Your task to perform on an android device: turn pop-ups on in chrome Image 0: 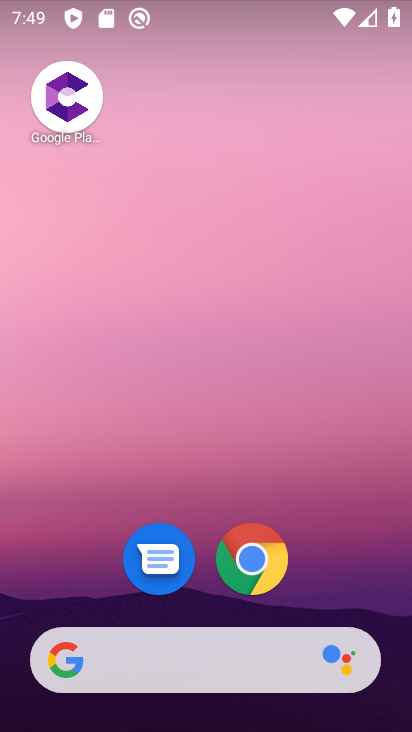
Step 0: click (249, 546)
Your task to perform on an android device: turn pop-ups on in chrome Image 1: 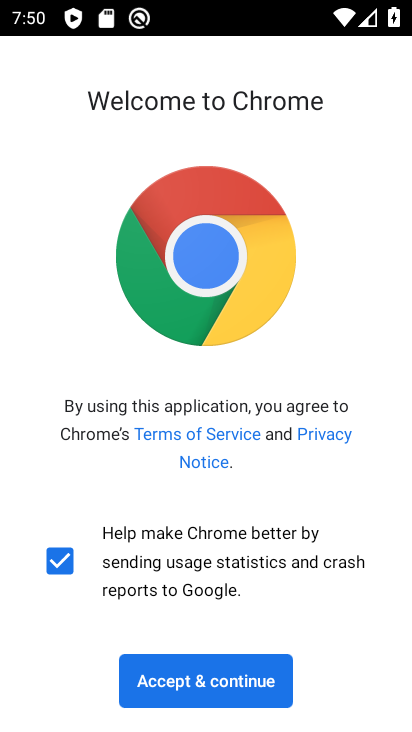
Step 1: click (216, 702)
Your task to perform on an android device: turn pop-ups on in chrome Image 2: 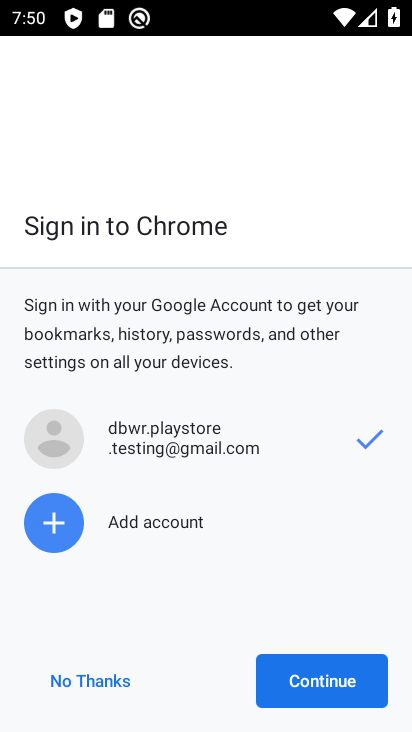
Step 2: click (288, 685)
Your task to perform on an android device: turn pop-ups on in chrome Image 3: 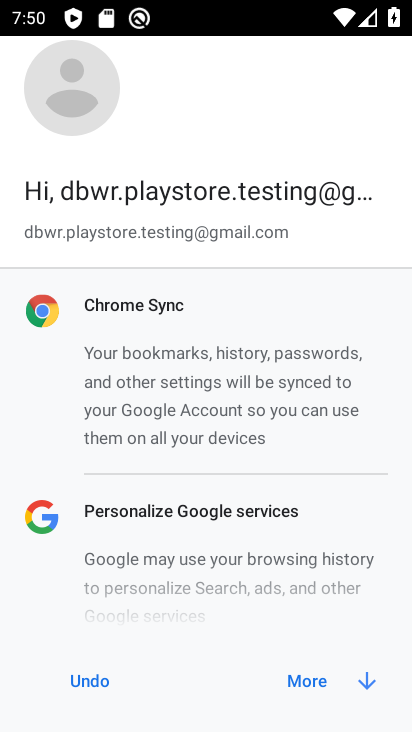
Step 3: click (347, 685)
Your task to perform on an android device: turn pop-ups on in chrome Image 4: 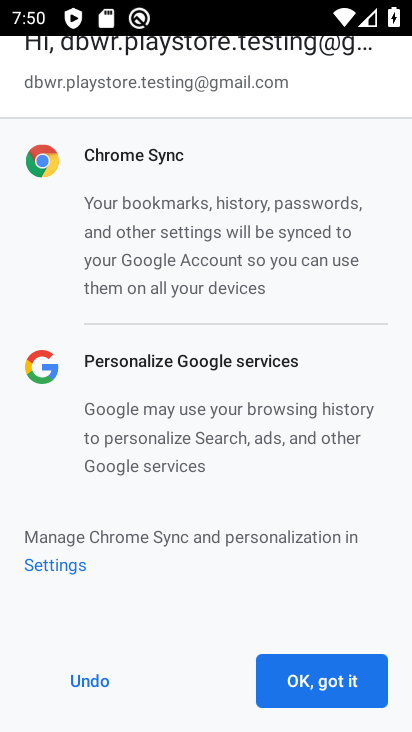
Step 4: click (347, 685)
Your task to perform on an android device: turn pop-ups on in chrome Image 5: 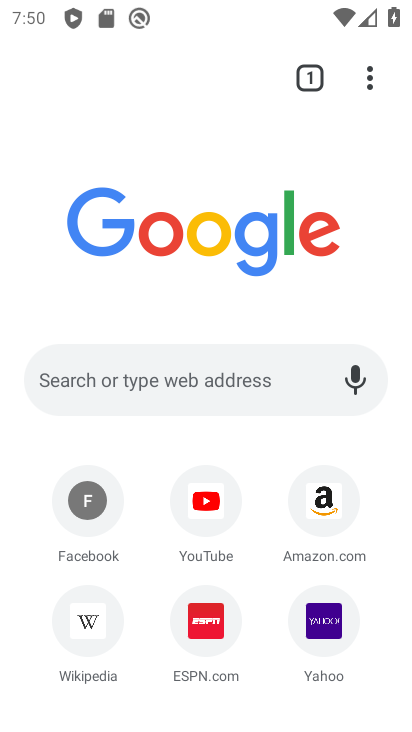
Step 5: click (375, 80)
Your task to perform on an android device: turn pop-ups on in chrome Image 6: 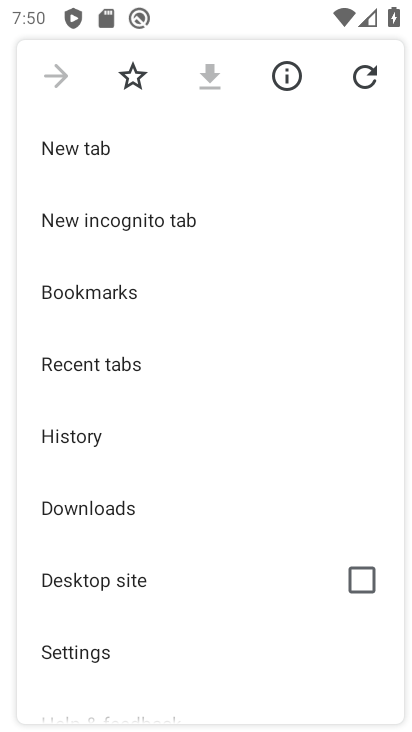
Step 6: drag from (228, 569) to (204, 295)
Your task to perform on an android device: turn pop-ups on in chrome Image 7: 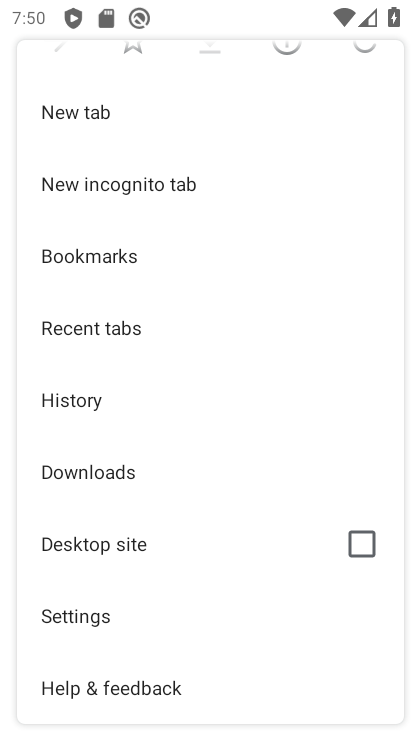
Step 7: click (138, 606)
Your task to perform on an android device: turn pop-ups on in chrome Image 8: 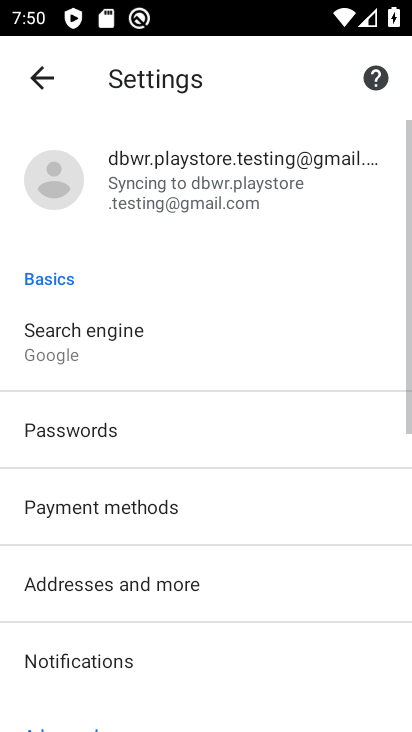
Step 8: drag from (238, 617) to (235, 190)
Your task to perform on an android device: turn pop-ups on in chrome Image 9: 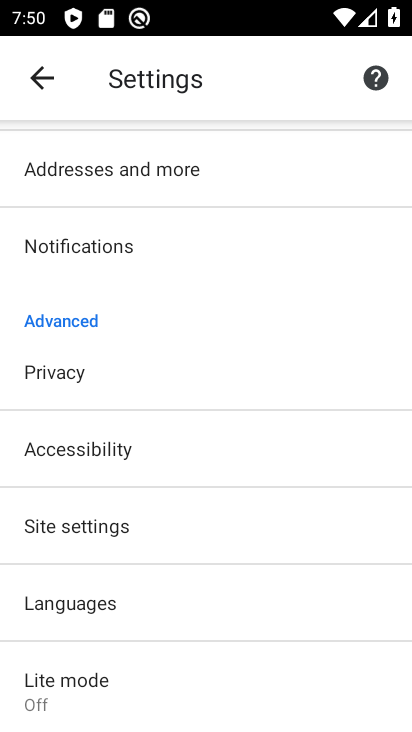
Step 9: click (188, 546)
Your task to perform on an android device: turn pop-ups on in chrome Image 10: 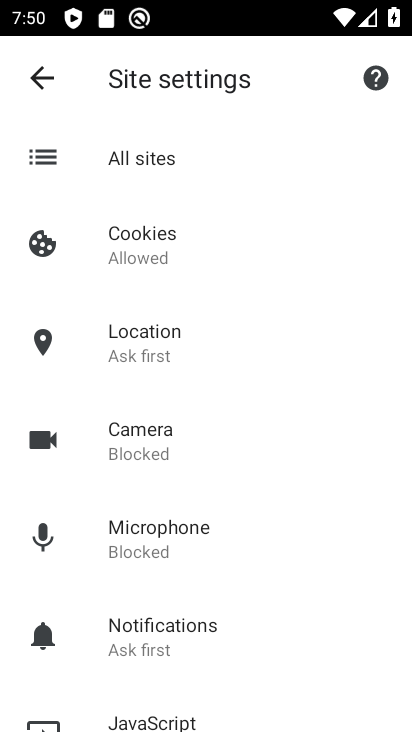
Step 10: drag from (218, 646) to (163, 241)
Your task to perform on an android device: turn pop-ups on in chrome Image 11: 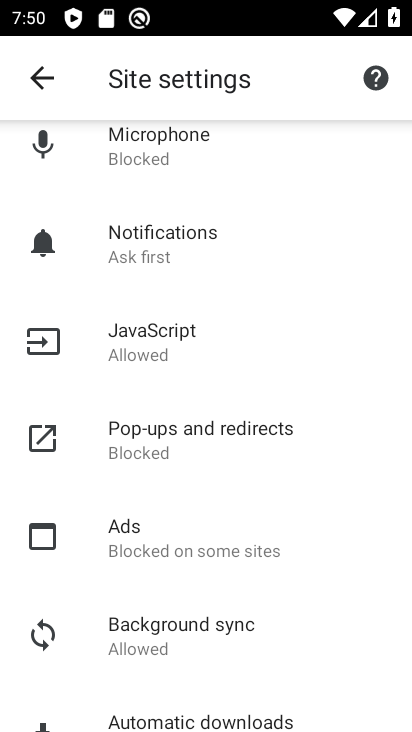
Step 11: drag from (188, 528) to (181, 222)
Your task to perform on an android device: turn pop-ups on in chrome Image 12: 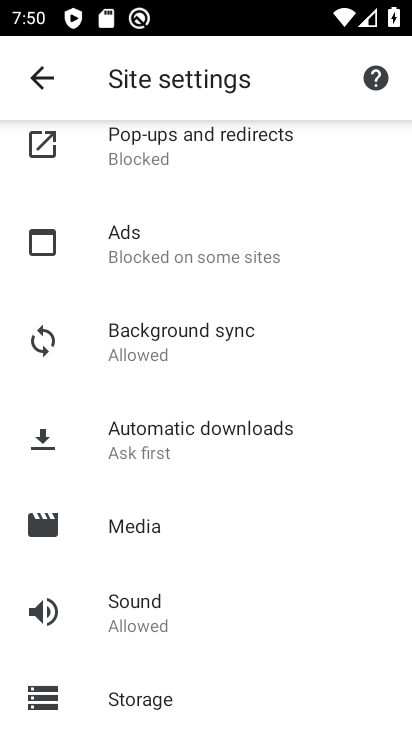
Step 12: drag from (170, 580) to (169, 463)
Your task to perform on an android device: turn pop-ups on in chrome Image 13: 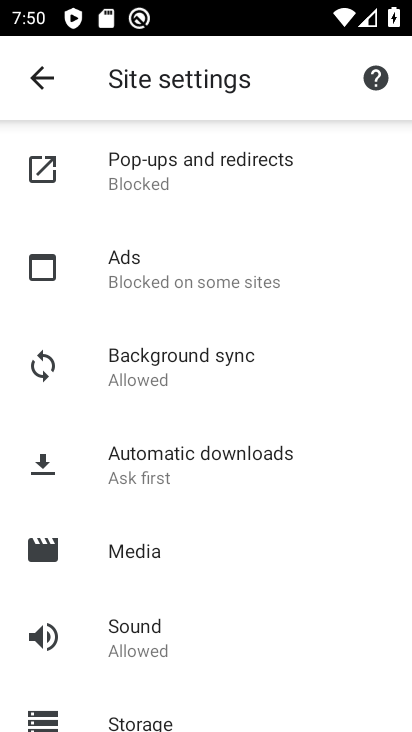
Step 13: click (118, 180)
Your task to perform on an android device: turn pop-ups on in chrome Image 14: 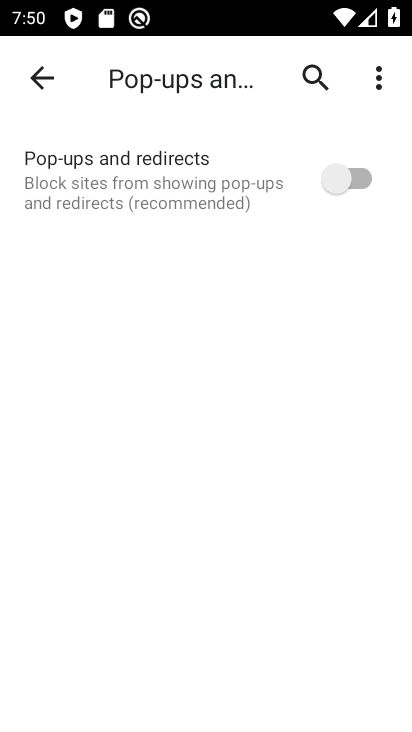
Step 14: click (324, 190)
Your task to perform on an android device: turn pop-ups on in chrome Image 15: 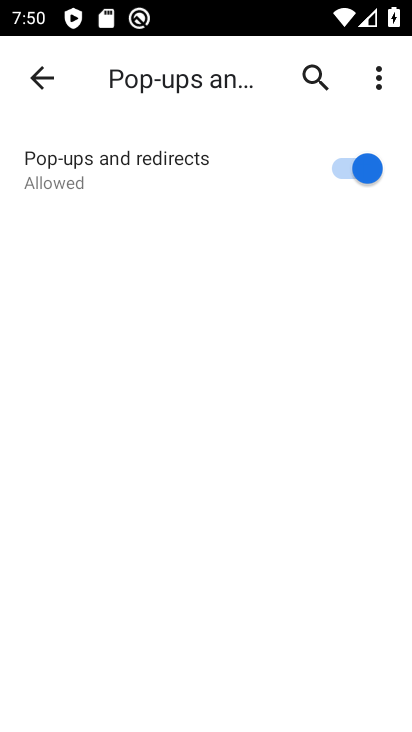
Step 15: task complete